Your task to perform on an android device: turn on priority inbox in the gmail app Image 0: 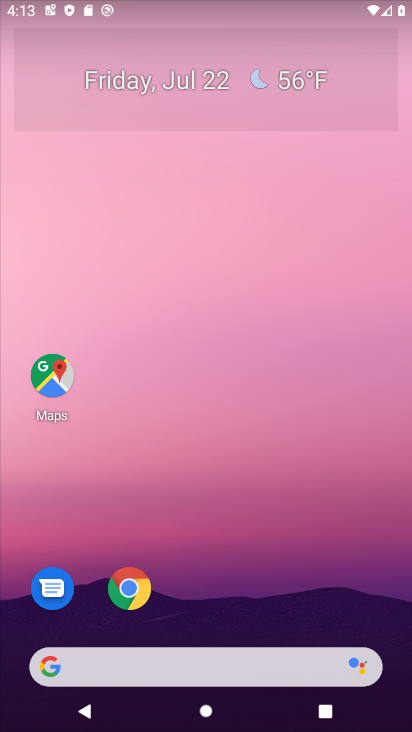
Step 0: drag from (182, 502) to (165, 150)
Your task to perform on an android device: turn on priority inbox in the gmail app Image 1: 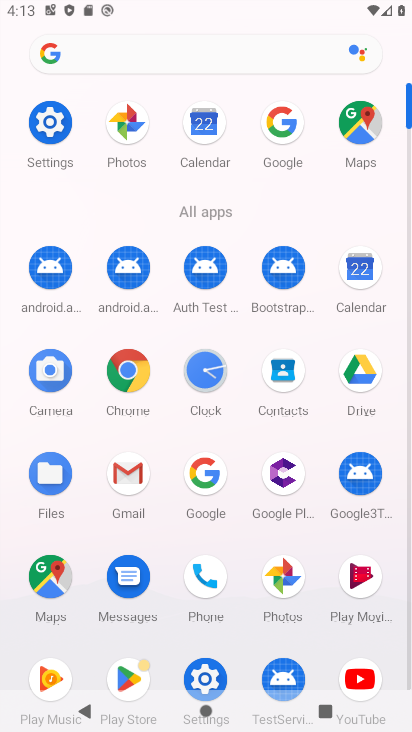
Step 1: click (139, 475)
Your task to perform on an android device: turn on priority inbox in the gmail app Image 2: 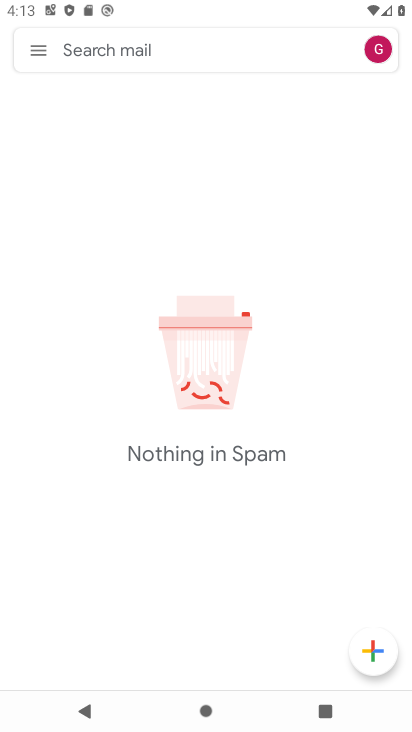
Step 2: click (42, 62)
Your task to perform on an android device: turn on priority inbox in the gmail app Image 3: 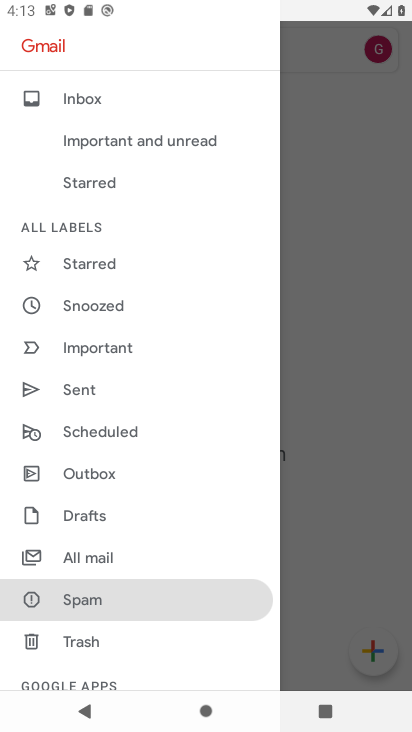
Step 3: drag from (127, 630) to (127, 290)
Your task to perform on an android device: turn on priority inbox in the gmail app Image 4: 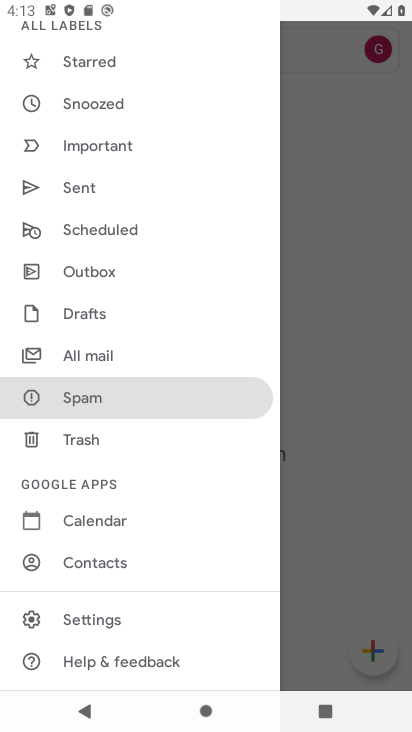
Step 4: click (119, 616)
Your task to perform on an android device: turn on priority inbox in the gmail app Image 5: 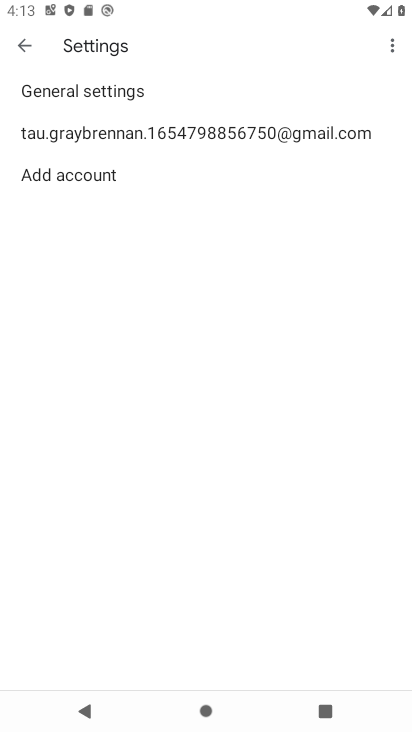
Step 5: click (116, 122)
Your task to perform on an android device: turn on priority inbox in the gmail app Image 6: 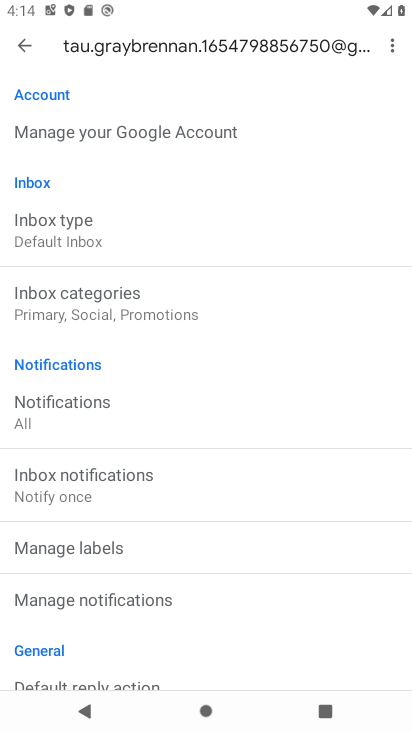
Step 6: click (140, 224)
Your task to perform on an android device: turn on priority inbox in the gmail app Image 7: 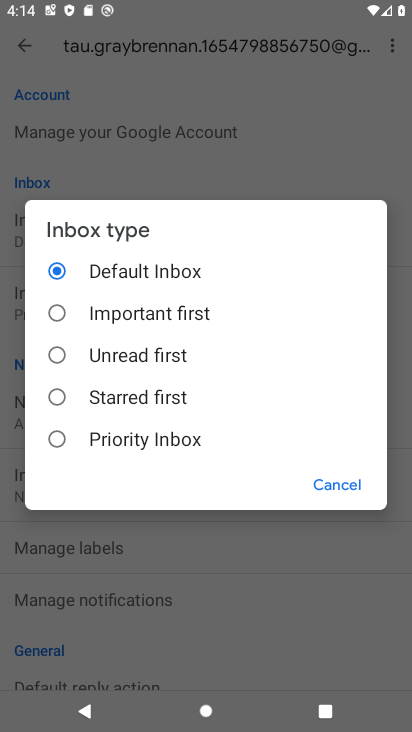
Step 7: click (126, 446)
Your task to perform on an android device: turn on priority inbox in the gmail app Image 8: 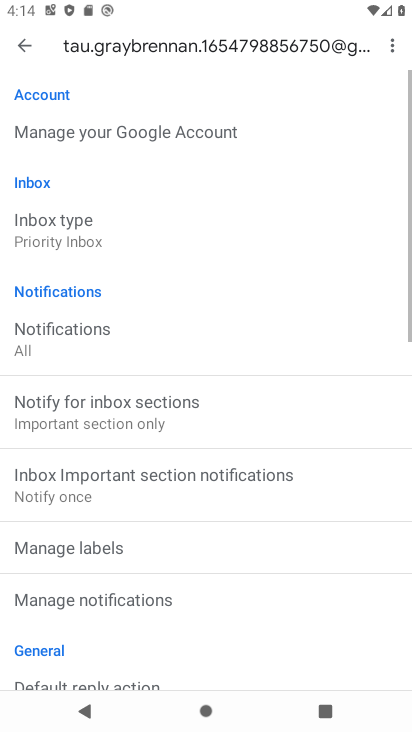
Step 8: task complete